Your task to perform on an android device: open a bookmark in the chrome app Image 0: 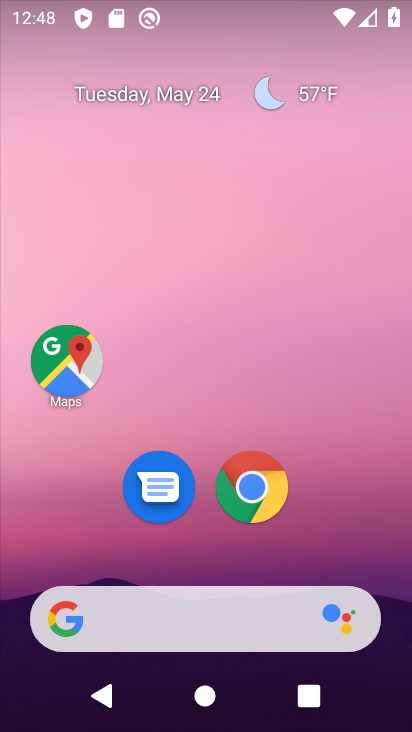
Step 0: click (253, 487)
Your task to perform on an android device: open a bookmark in the chrome app Image 1: 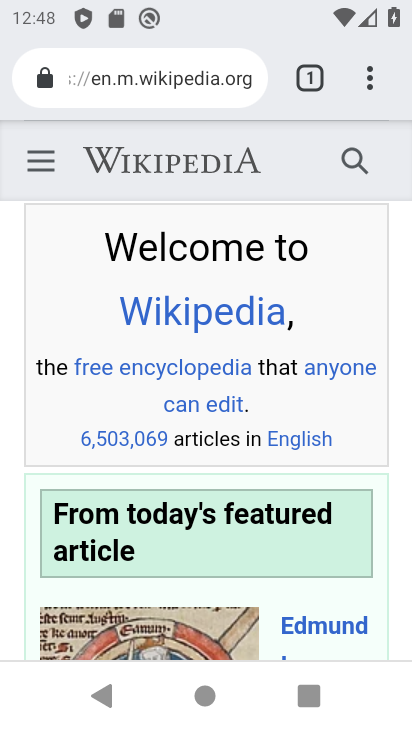
Step 1: click (370, 86)
Your task to perform on an android device: open a bookmark in the chrome app Image 2: 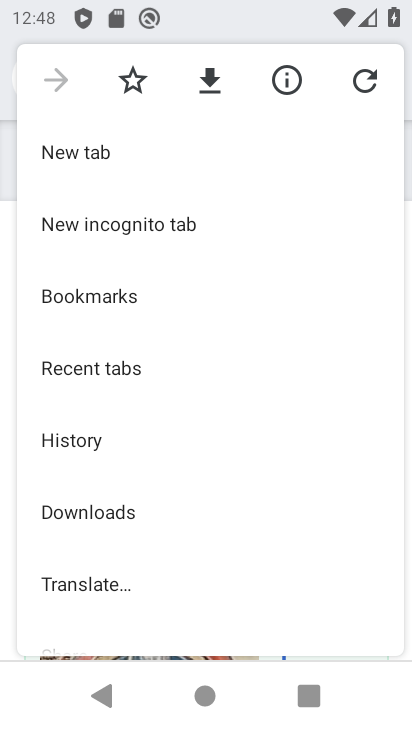
Step 2: click (94, 292)
Your task to perform on an android device: open a bookmark in the chrome app Image 3: 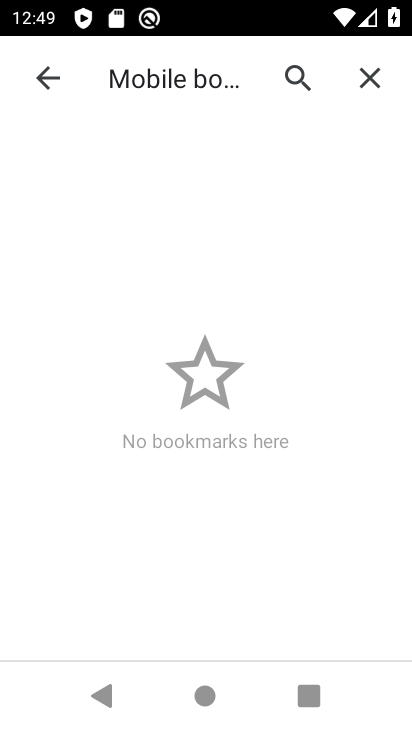
Step 3: task complete